Your task to perform on an android device: toggle location history Image 0: 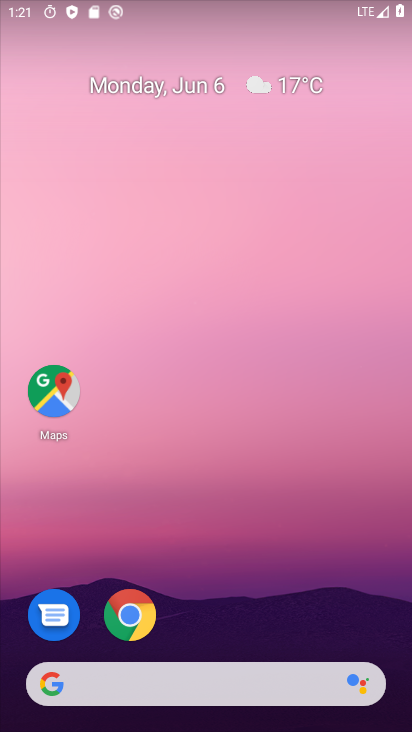
Step 0: drag from (188, 629) to (193, 143)
Your task to perform on an android device: toggle location history Image 1: 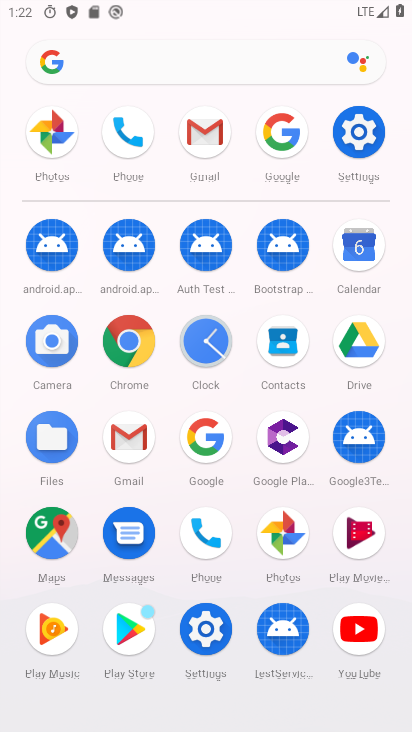
Step 1: click (365, 121)
Your task to perform on an android device: toggle location history Image 2: 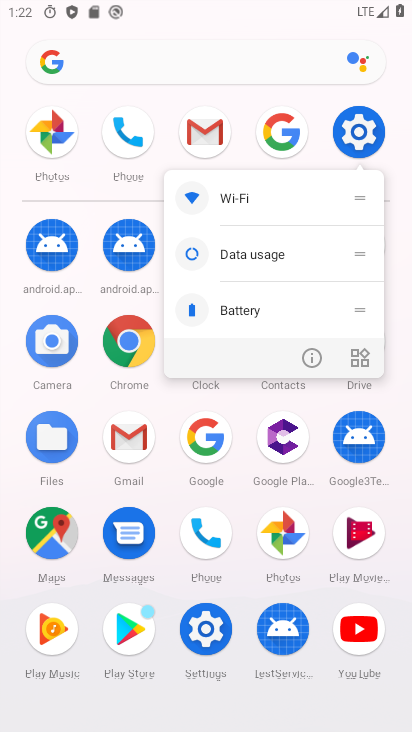
Step 2: click (304, 350)
Your task to perform on an android device: toggle location history Image 3: 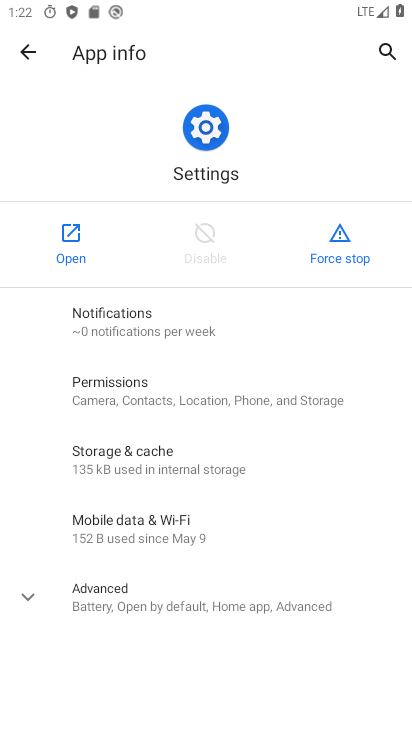
Step 3: click (65, 248)
Your task to perform on an android device: toggle location history Image 4: 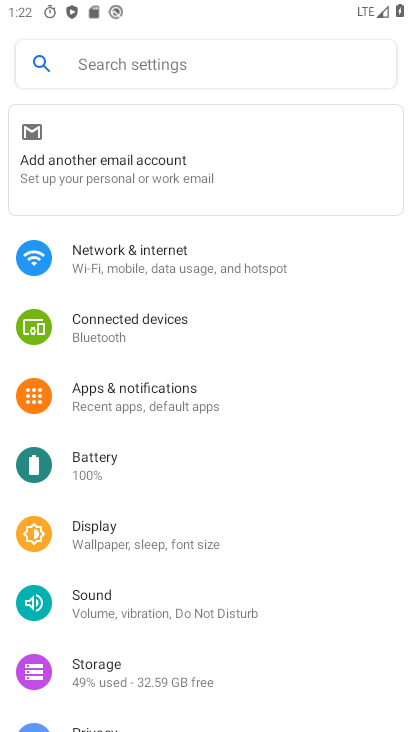
Step 4: drag from (244, 617) to (265, 177)
Your task to perform on an android device: toggle location history Image 5: 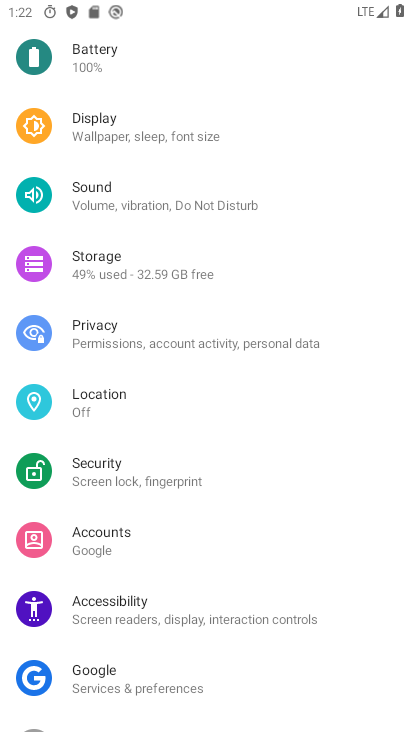
Step 5: drag from (138, 594) to (162, 275)
Your task to perform on an android device: toggle location history Image 6: 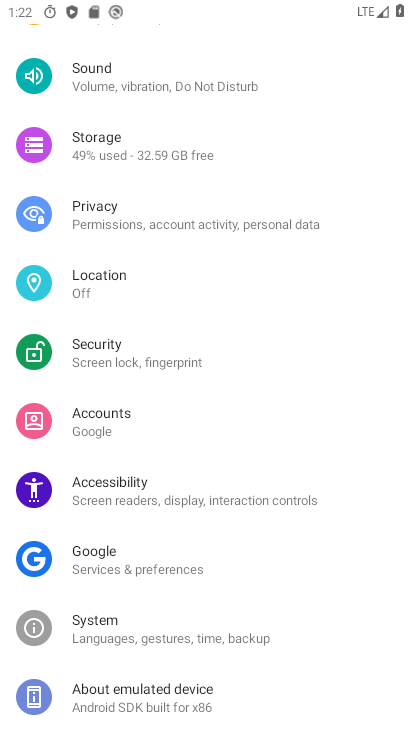
Step 6: click (120, 267)
Your task to perform on an android device: toggle location history Image 7: 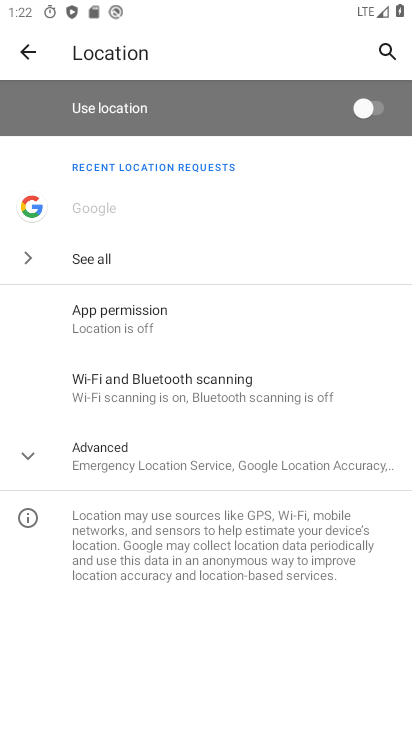
Step 7: click (369, 113)
Your task to perform on an android device: toggle location history Image 8: 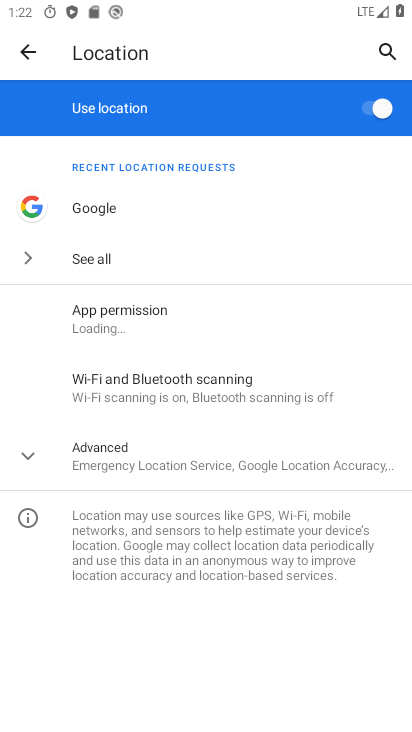
Step 8: task complete